Your task to perform on an android device: turn off sleep mode Image 0: 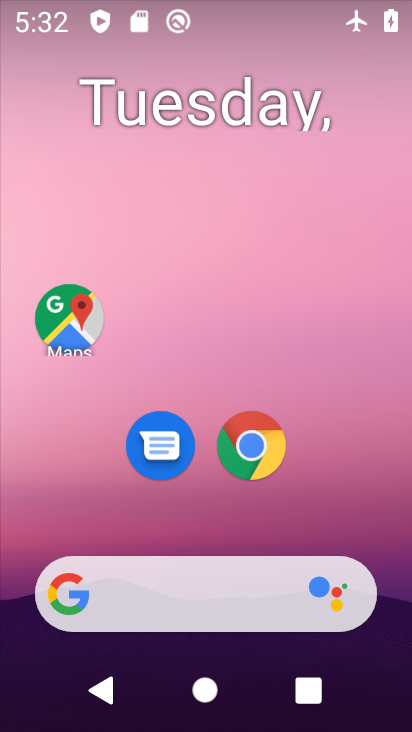
Step 0: drag from (292, 509) to (302, 92)
Your task to perform on an android device: turn off sleep mode Image 1: 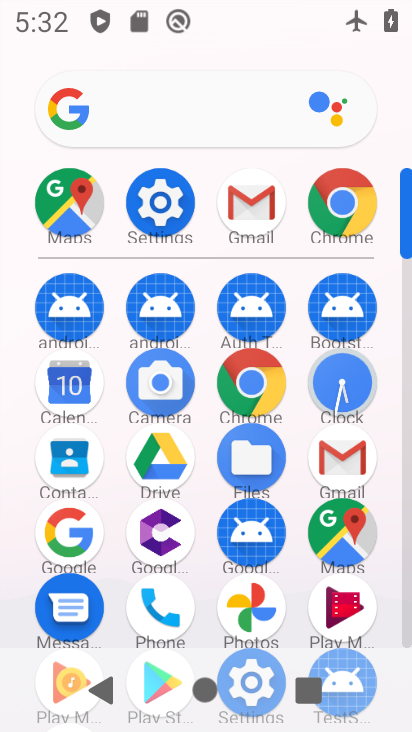
Step 1: click (158, 188)
Your task to perform on an android device: turn off sleep mode Image 2: 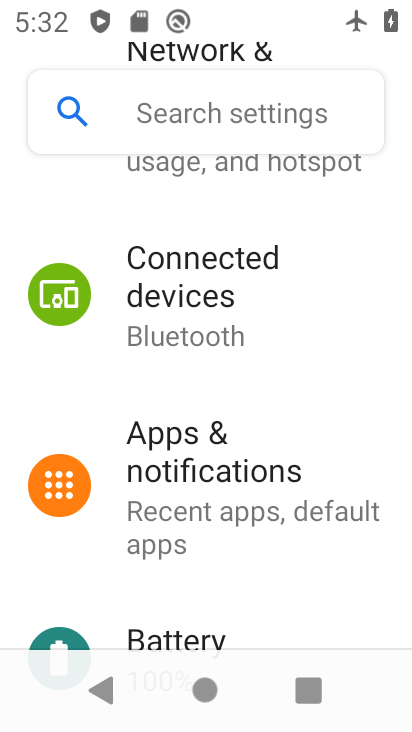
Step 2: drag from (234, 567) to (269, 241)
Your task to perform on an android device: turn off sleep mode Image 3: 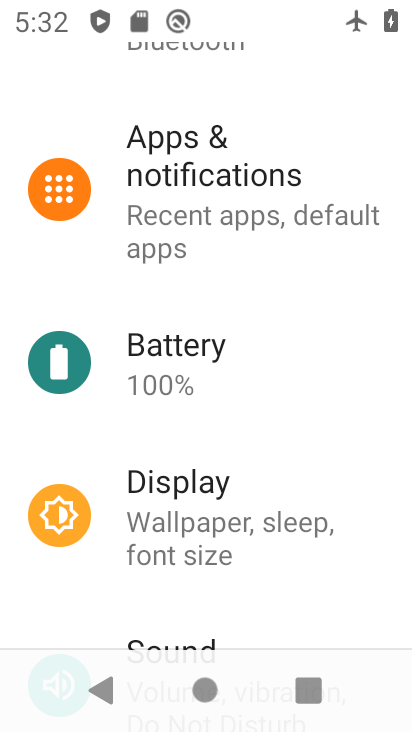
Step 3: click (188, 521)
Your task to perform on an android device: turn off sleep mode Image 4: 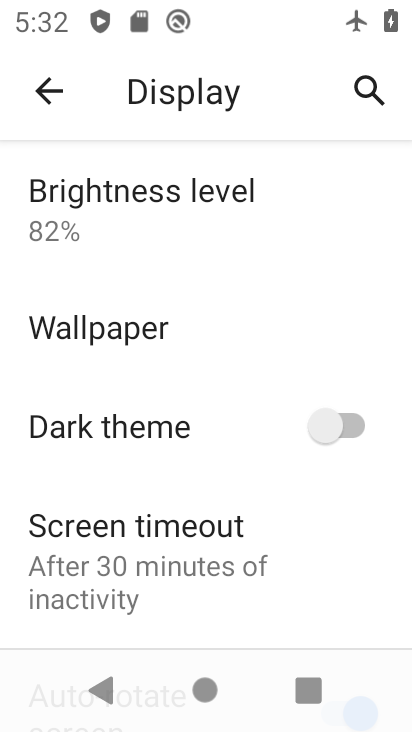
Step 4: task complete